Your task to perform on an android device: star an email in the gmail app Image 0: 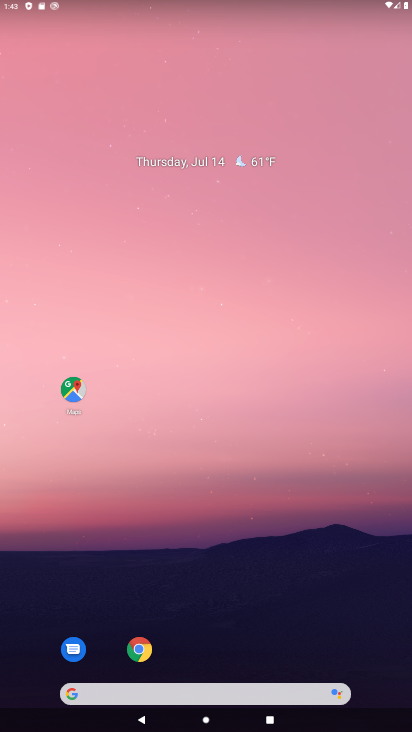
Step 0: press home button
Your task to perform on an android device: star an email in the gmail app Image 1: 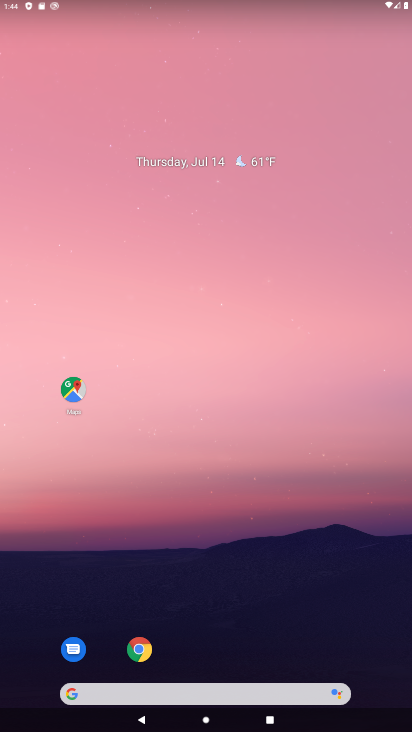
Step 1: drag from (215, 507) to (215, 74)
Your task to perform on an android device: star an email in the gmail app Image 2: 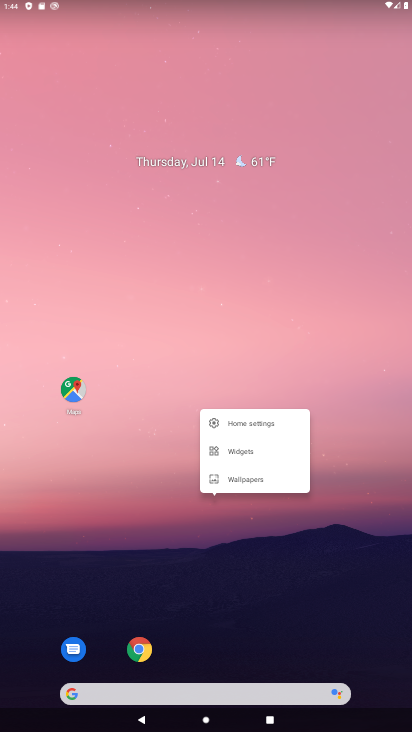
Step 2: click (174, 603)
Your task to perform on an android device: star an email in the gmail app Image 3: 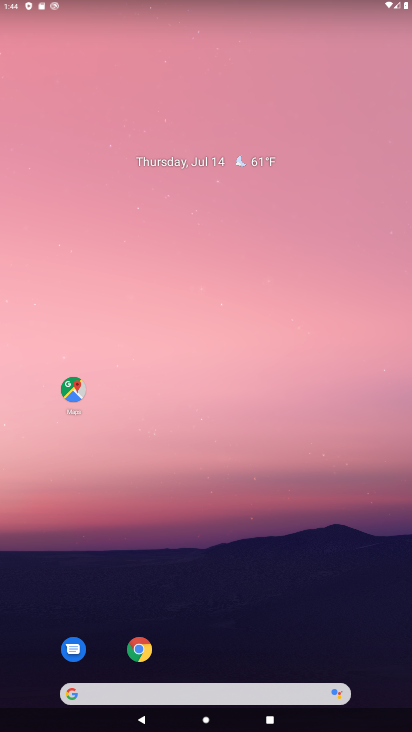
Step 3: drag from (216, 633) to (264, 28)
Your task to perform on an android device: star an email in the gmail app Image 4: 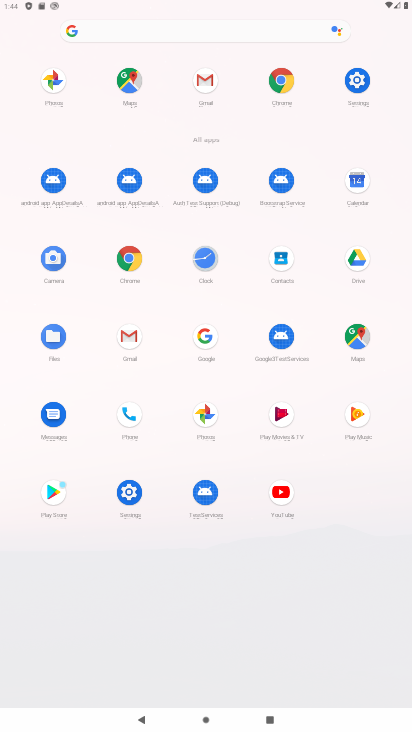
Step 4: click (204, 76)
Your task to perform on an android device: star an email in the gmail app Image 5: 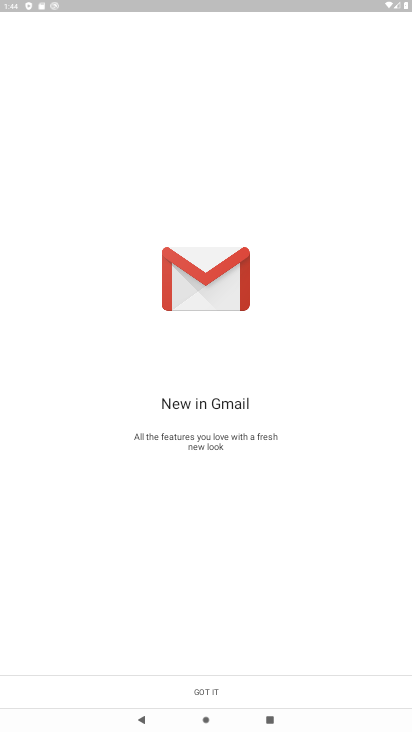
Step 5: click (206, 693)
Your task to perform on an android device: star an email in the gmail app Image 6: 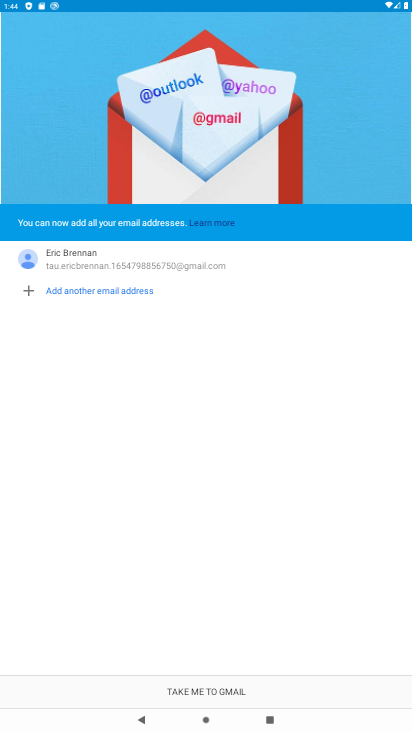
Step 6: click (211, 685)
Your task to perform on an android device: star an email in the gmail app Image 7: 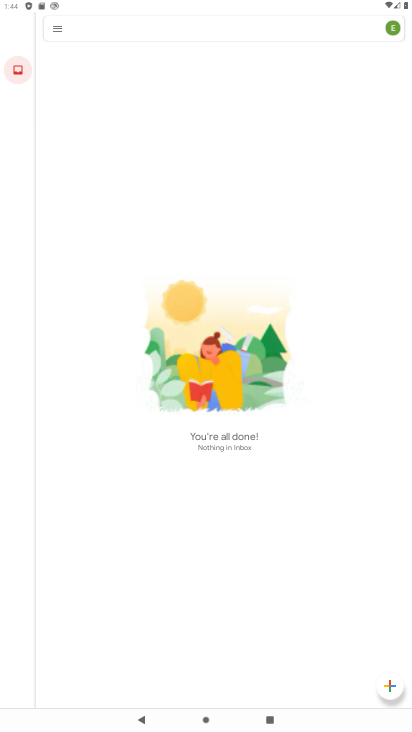
Step 7: task complete